Your task to perform on an android device: Open Google Image 0: 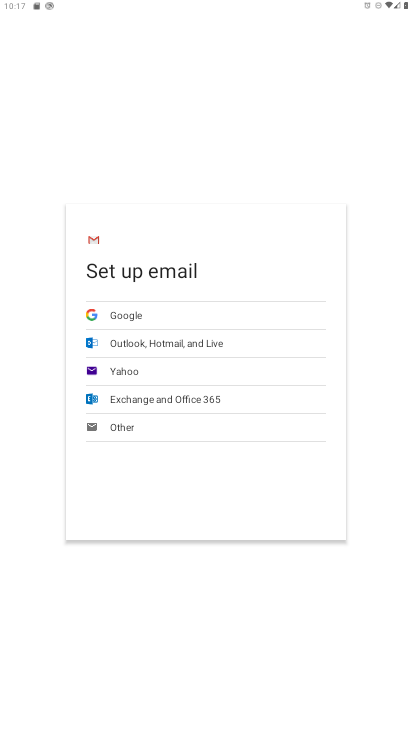
Step 0: press home button
Your task to perform on an android device: Open Google Image 1: 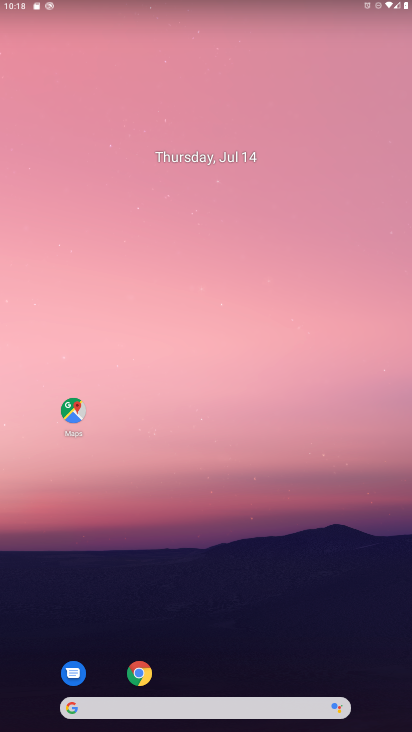
Step 1: drag from (176, 704) to (205, 204)
Your task to perform on an android device: Open Google Image 2: 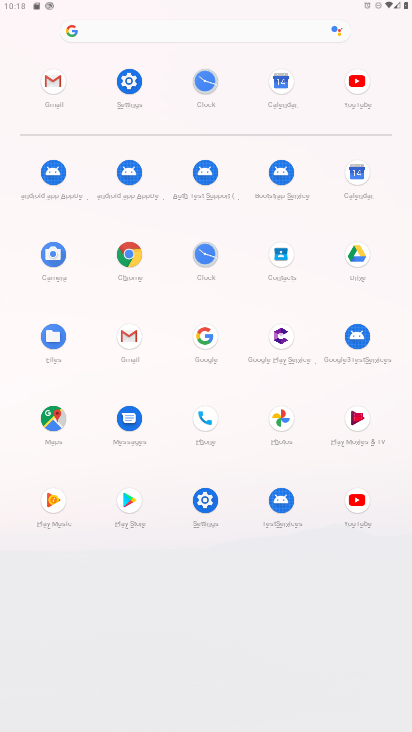
Step 2: click (204, 334)
Your task to perform on an android device: Open Google Image 3: 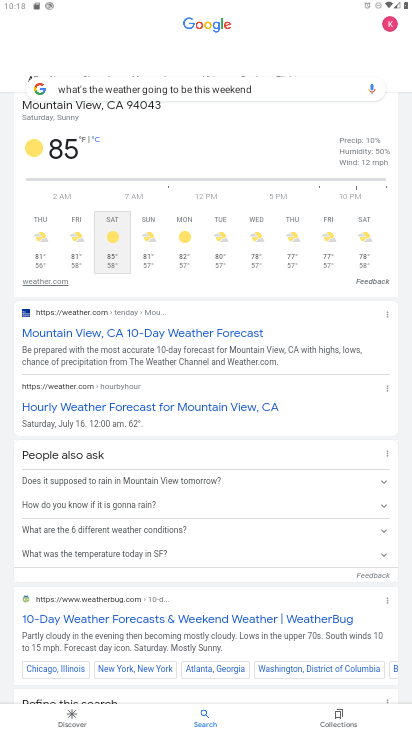
Step 3: task complete